Your task to perform on an android device: open app "Firefox Browser" (install if not already installed) and go to login screen Image 0: 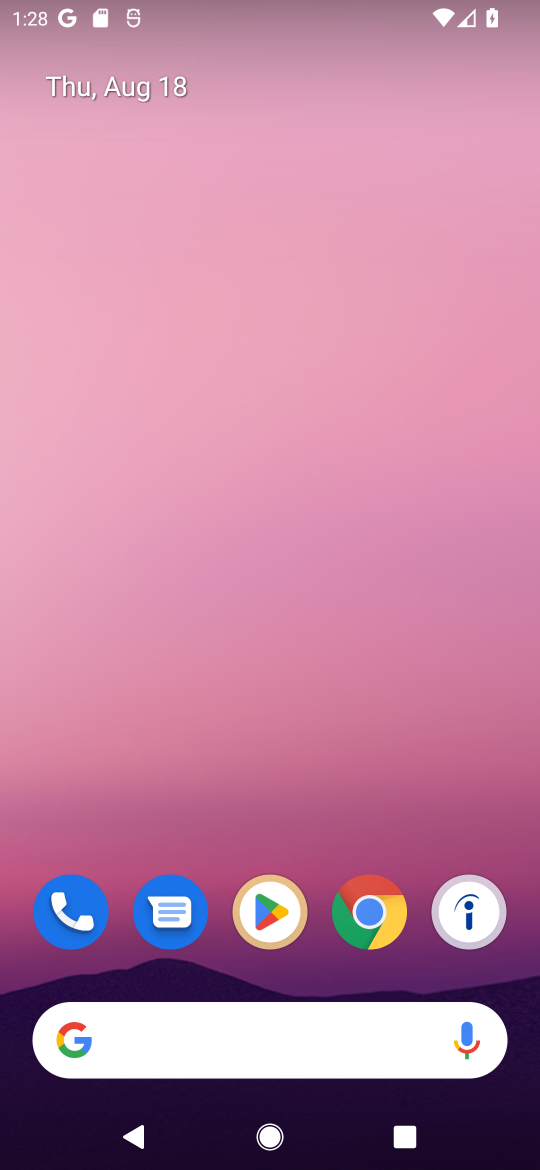
Step 0: click (277, 911)
Your task to perform on an android device: open app "Firefox Browser" (install if not already installed) and go to login screen Image 1: 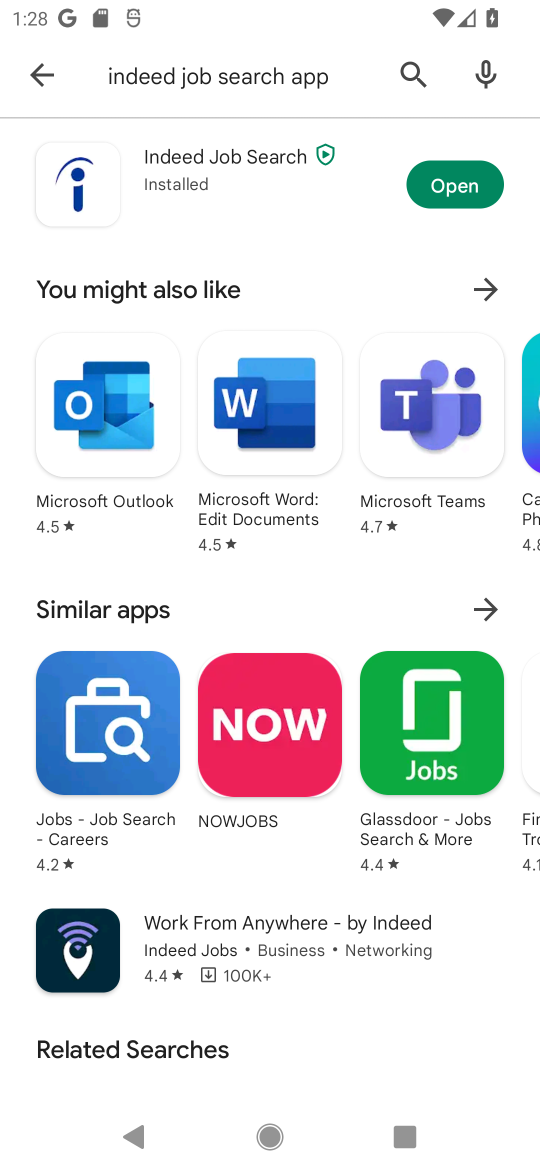
Step 1: click (402, 70)
Your task to perform on an android device: open app "Firefox Browser" (install if not already installed) and go to login screen Image 2: 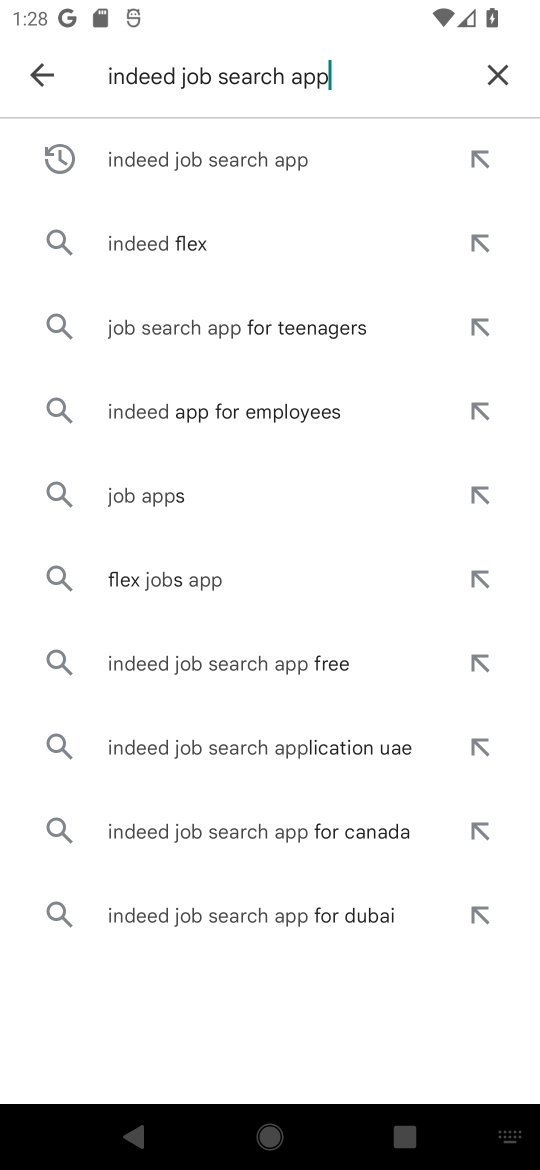
Step 2: click (483, 59)
Your task to perform on an android device: open app "Firefox Browser" (install if not already installed) and go to login screen Image 3: 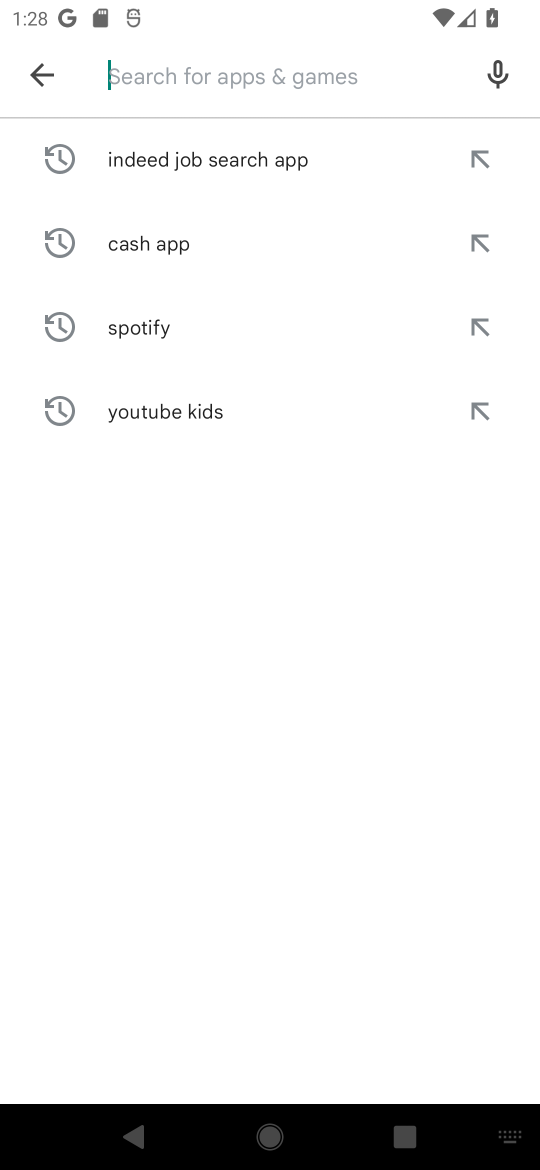
Step 3: click (144, 75)
Your task to perform on an android device: open app "Firefox Browser" (install if not already installed) and go to login screen Image 4: 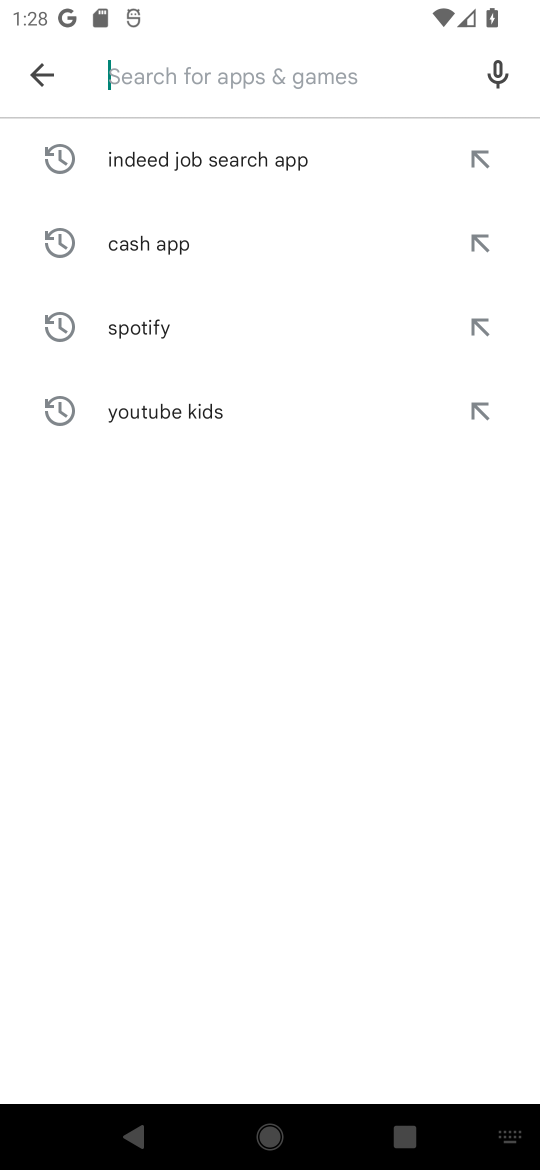
Step 4: type "Firefox Browser"
Your task to perform on an android device: open app "Firefox Browser" (install if not already installed) and go to login screen Image 5: 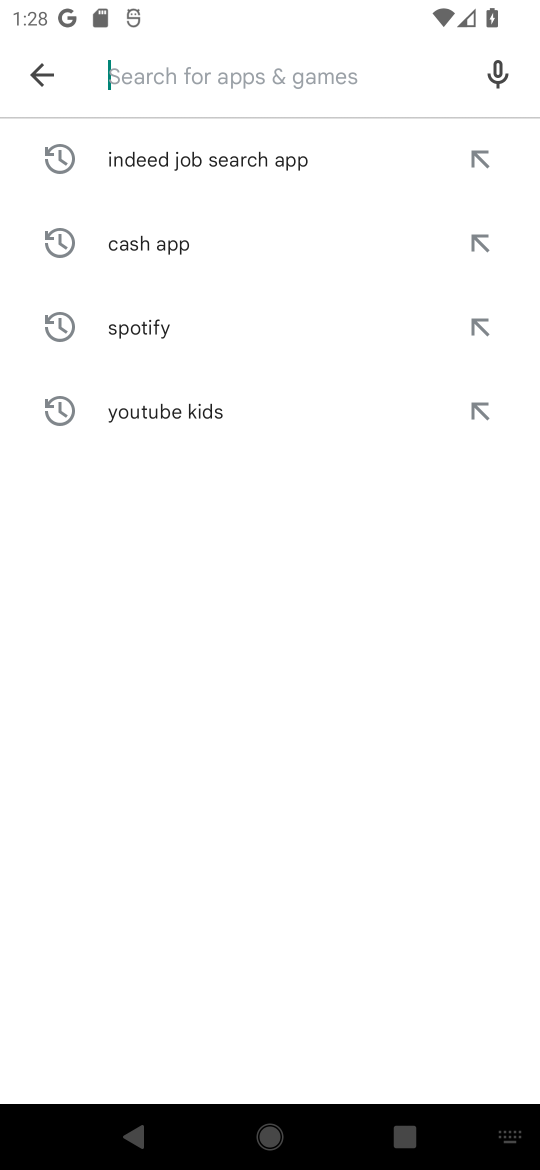
Step 5: click (364, 752)
Your task to perform on an android device: open app "Firefox Browser" (install if not already installed) and go to login screen Image 6: 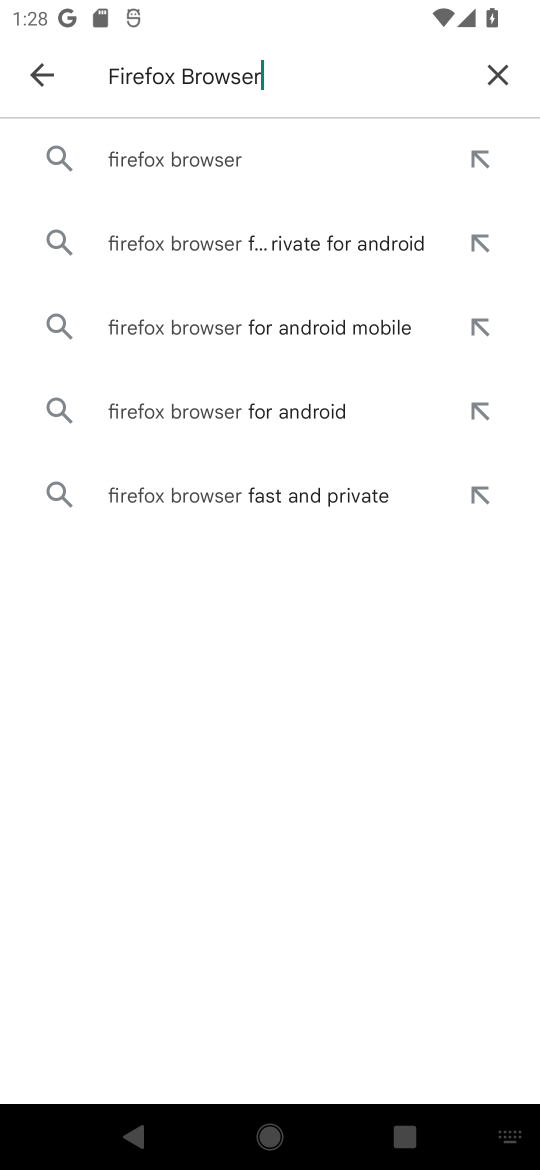
Step 6: click (175, 157)
Your task to perform on an android device: open app "Firefox Browser" (install if not already installed) and go to login screen Image 7: 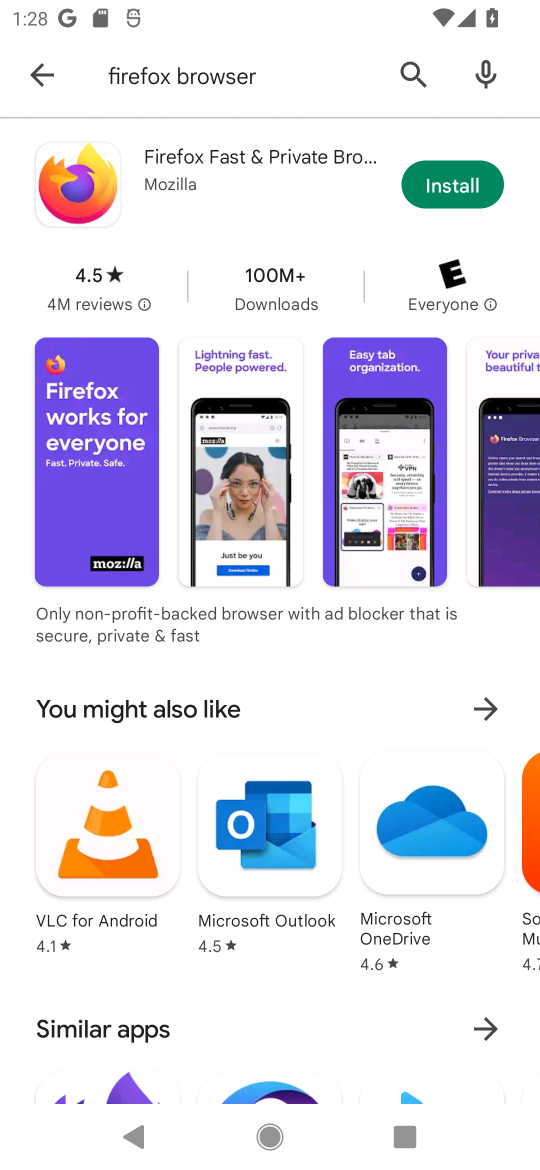
Step 7: click (420, 182)
Your task to perform on an android device: open app "Firefox Browser" (install if not already installed) and go to login screen Image 8: 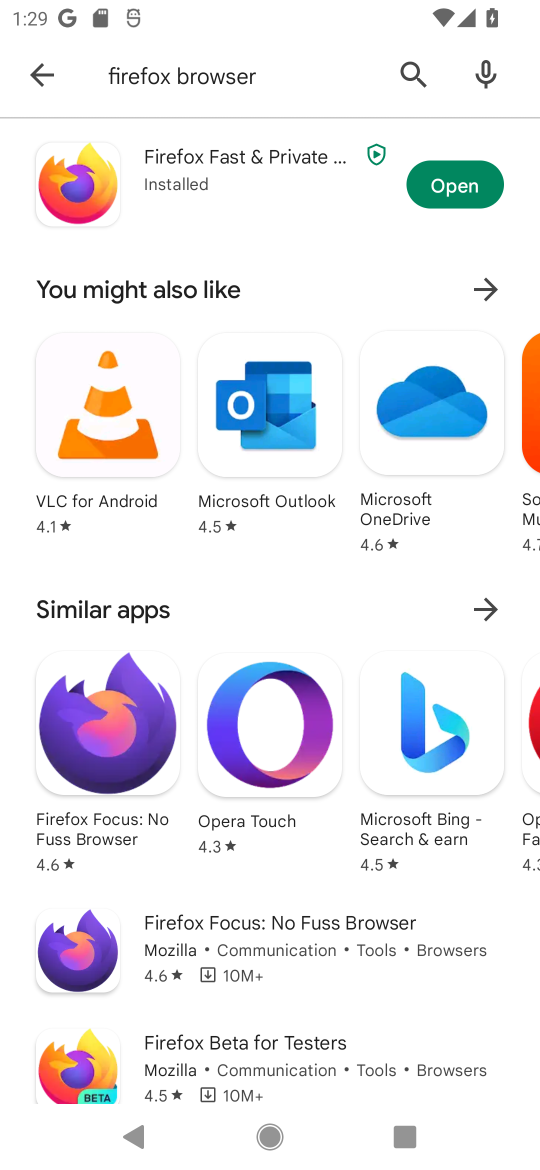
Step 8: click (458, 178)
Your task to perform on an android device: open app "Firefox Browser" (install if not already installed) and go to login screen Image 9: 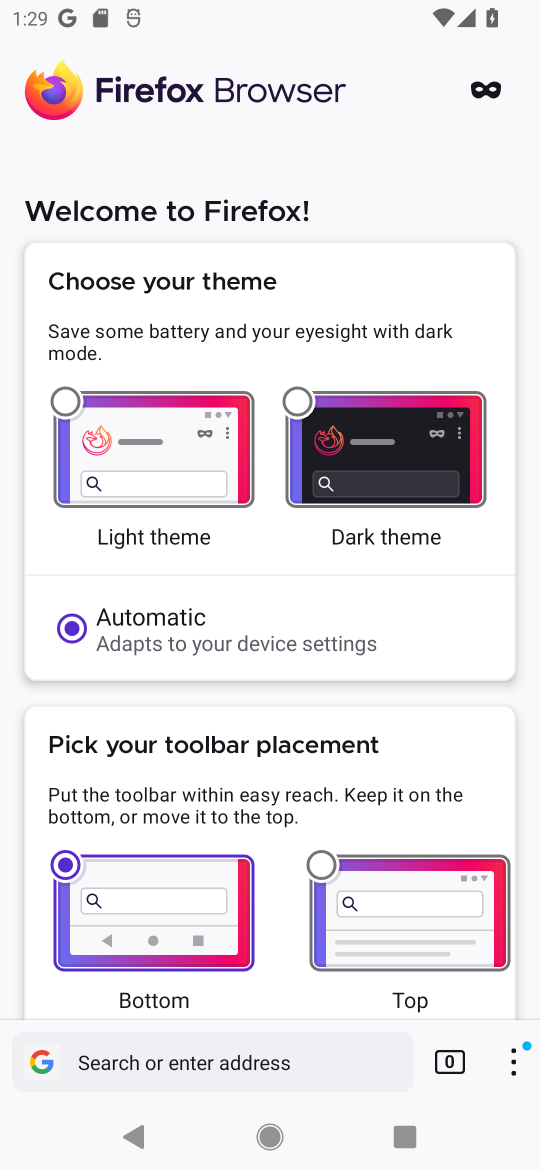
Step 9: task complete